Your task to perform on an android device: delete the emails in spam in the gmail app Image 0: 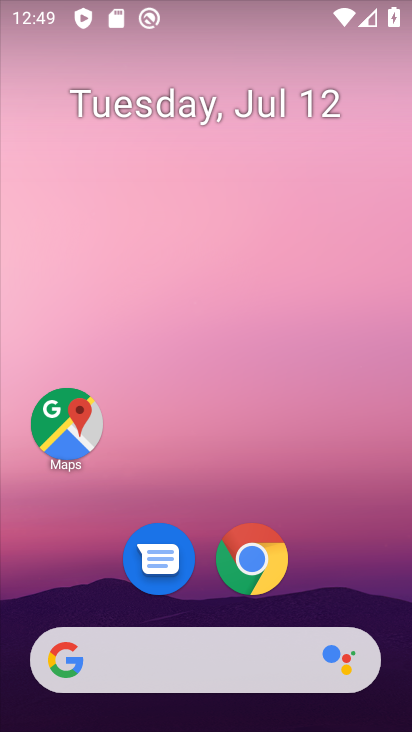
Step 0: drag from (373, 581) to (355, 189)
Your task to perform on an android device: delete the emails in spam in the gmail app Image 1: 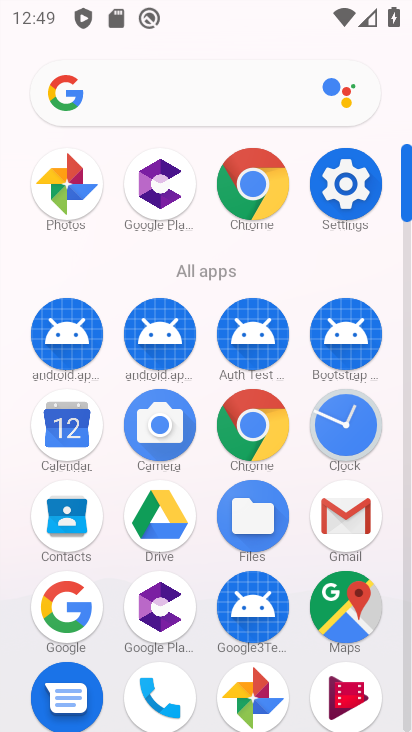
Step 1: click (352, 519)
Your task to perform on an android device: delete the emails in spam in the gmail app Image 2: 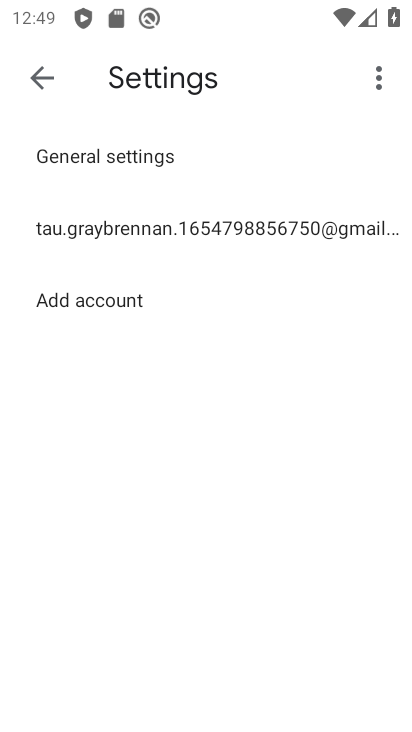
Step 2: press back button
Your task to perform on an android device: delete the emails in spam in the gmail app Image 3: 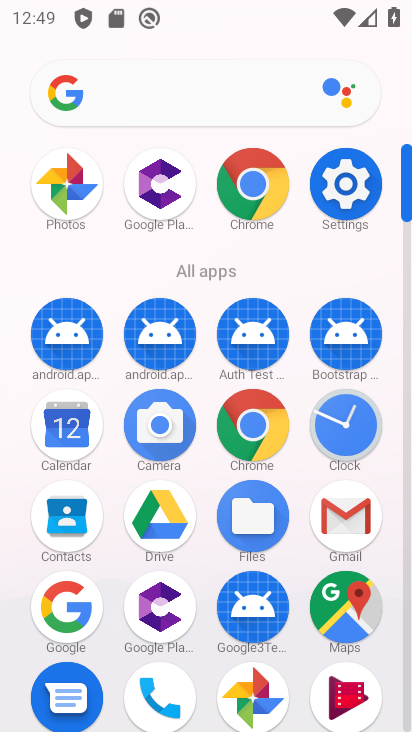
Step 3: click (353, 524)
Your task to perform on an android device: delete the emails in spam in the gmail app Image 4: 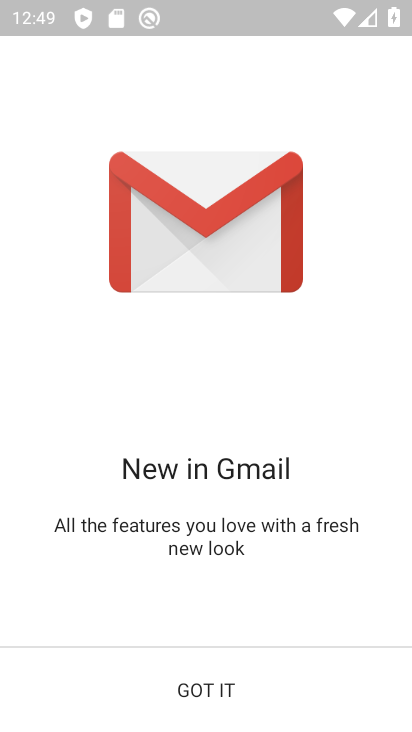
Step 4: click (226, 689)
Your task to perform on an android device: delete the emails in spam in the gmail app Image 5: 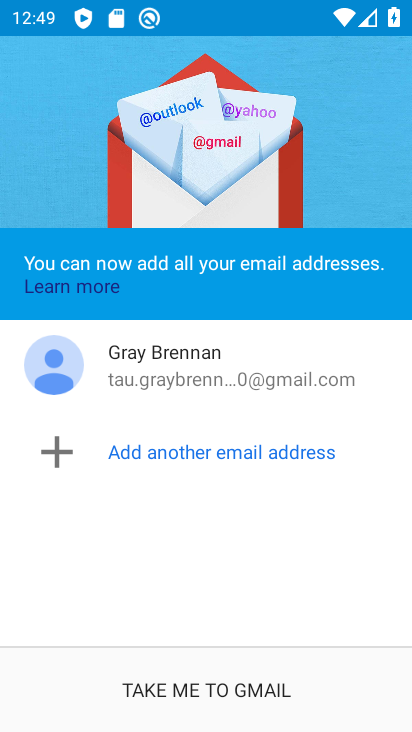
Step 5: click (252, 696)
Your task to perform on an android device: delete the emails in spam in the gmail app Image 6: 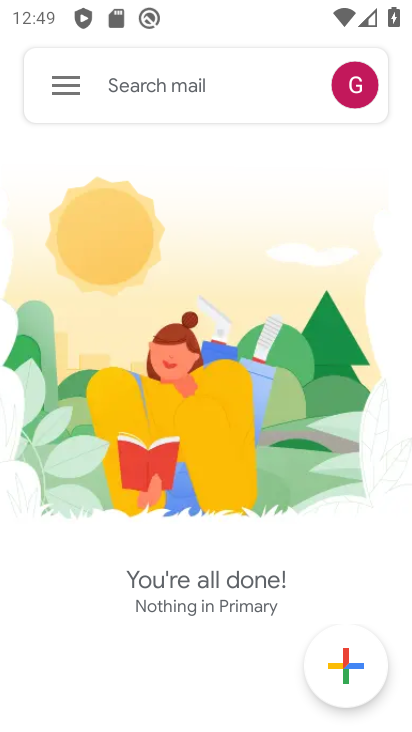
Step 6: task complete